Your task to perform on an android device: Is it going to rain tomorrow? Image 0: 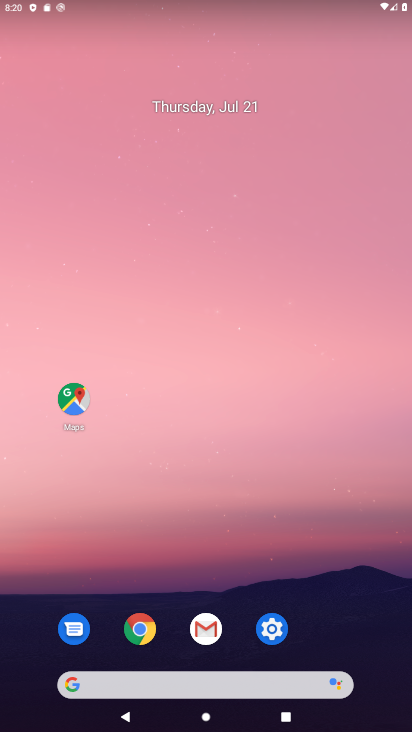
Step 0: press home button
Your task to perform on an android device: Is it going to rain tomorrow? Image 1: 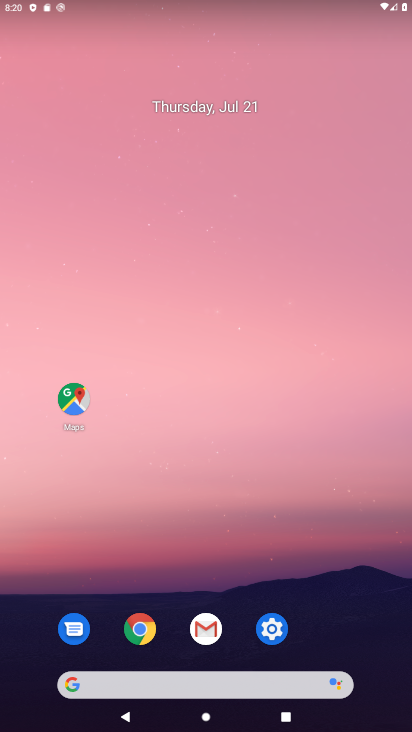
Step 1: click (209, 685)
Your task to perform on an android device: Is it going to rain tomorrow? Image 2: 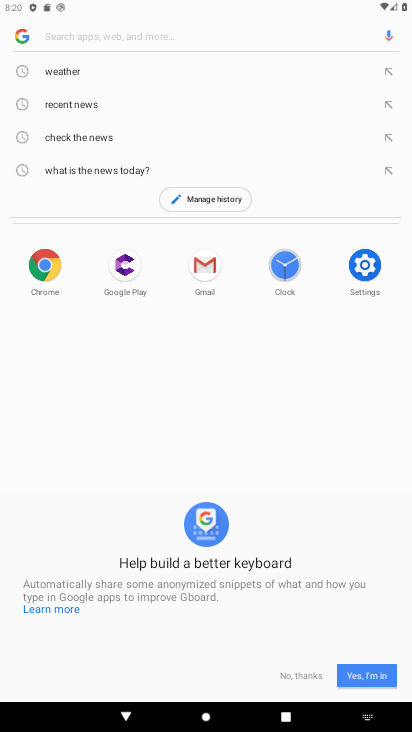
Step 2: click (296, 677)
Your task to perform on an android device: Is it going to rain tomorrow? Image 3: 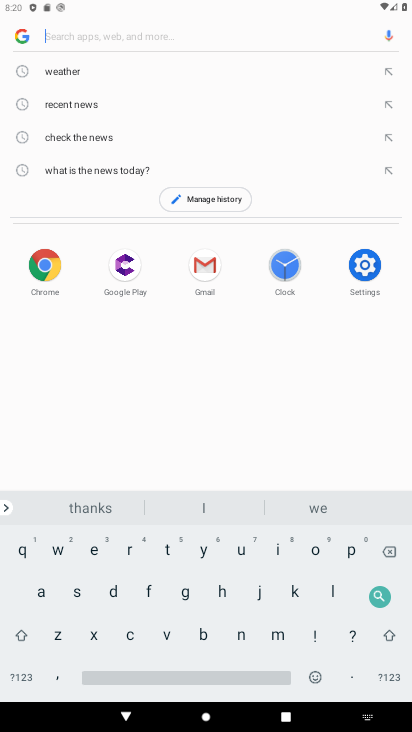
Step 3: click (284, 546)
Your task to perform on an android device: Is it going to rain tomorrow? Image 4: 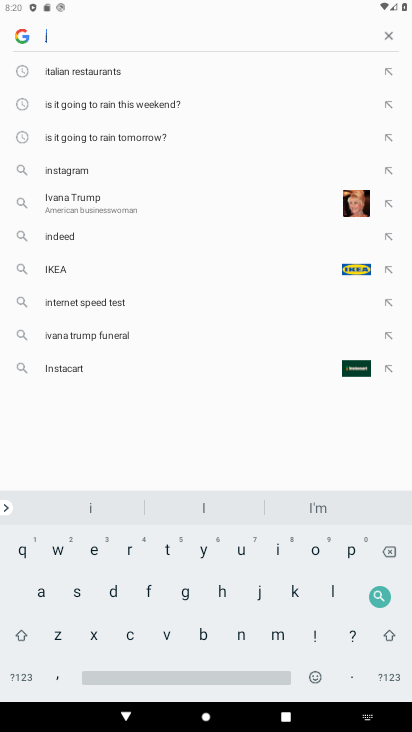
Step 4: click (78, 589)
Your task to perform on an android device: Is it going to rain tomorrow? Image 5: 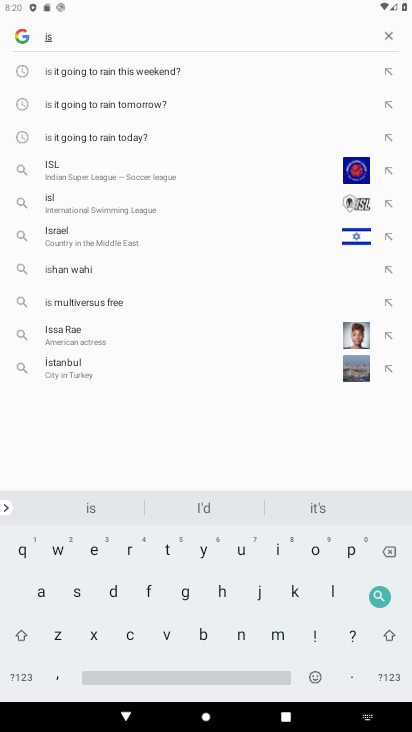
Step 5: click (157, 103)
Your task to perform on an android device: Is it going to rain tomorrow? Image 6: 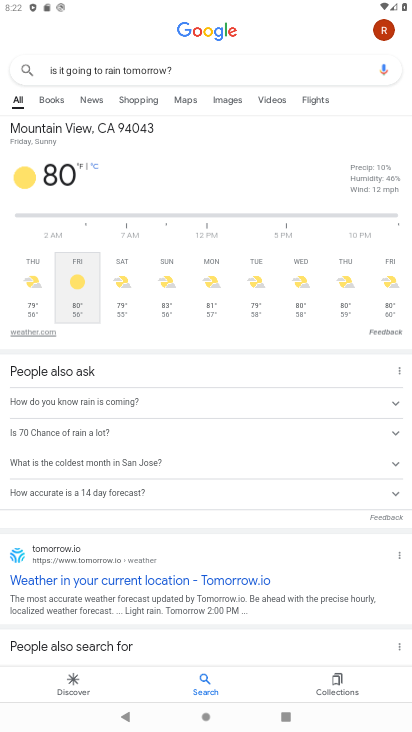
Step 6: task complete